Your task to perform on an android device: Do I have any events this weekend? Image 0: 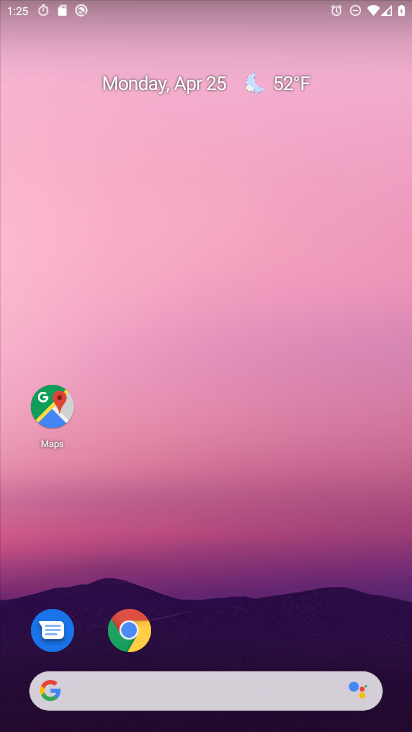
Step 0: drag from (181, 667) to (227, 307)
Your task to perform on an android device: Do I have any events this weekend? Image 1: 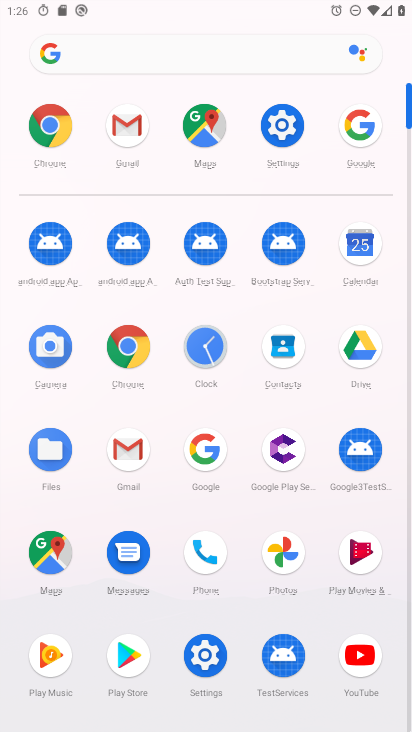
Step 1: click (346, 243)
Your task to perform on an android device: Do I have any events this weekend? Image 2: 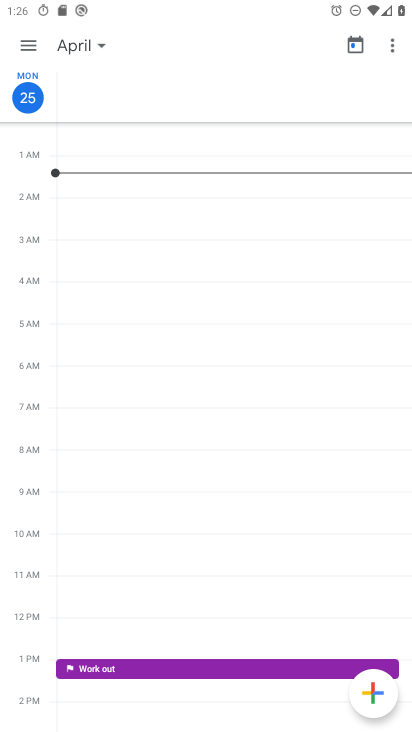
Step 2: task complete